Your task to perform on an android device: change the clock display to digital Image 0: 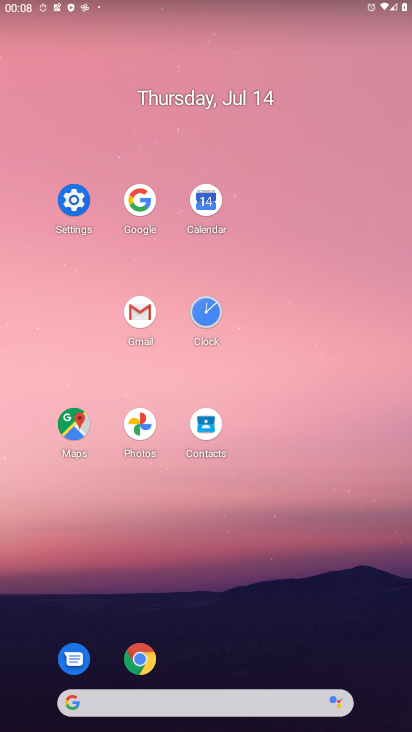
Step 0: click (211, 318)
Your task to perform on an android device: change the clock display to digital Image 1: 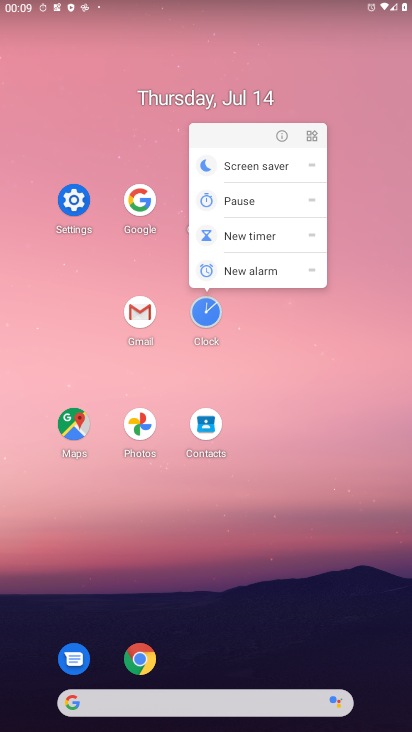
Step 1: click (210, 318)
Your task to perform on an android device: change the clock display to digital Image 2: 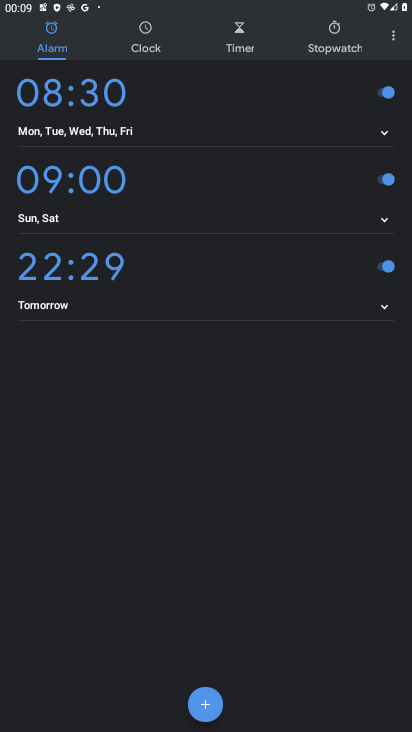
Step 2: click (390, 34)
Your task to perform on an android device: change the clock display to digital Image 3: 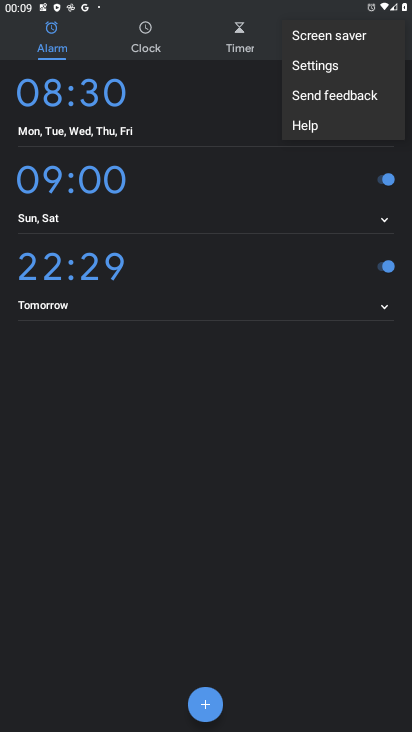
Step 3: click (382, 60)
Your task to perform on an android device: change the clock display to digital Image 4: 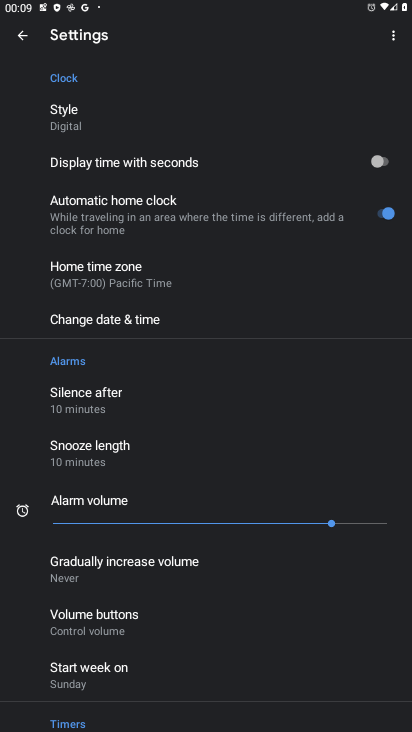
Step 4: task complete